Your task to perform on an android device: Open calendar and show me the fourth week of next month Image 0: 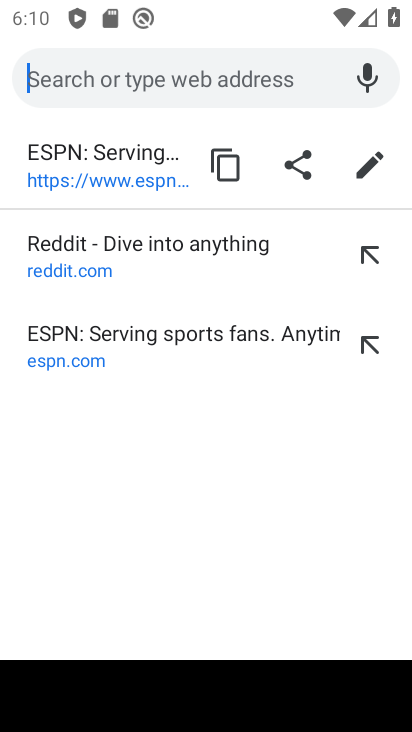
Step 0: press home button
Your task to perform on an android device: Open calendar and show me the fourth week of next month Image 1: 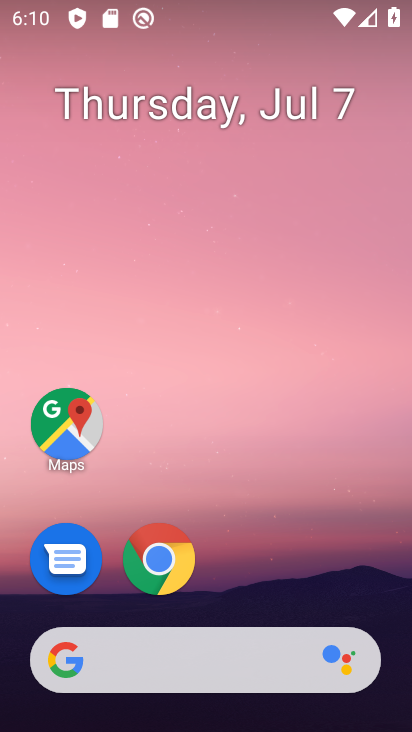
Step 1: drag from (316, 597) to (346, 184)
Your task to perform on an android device: Open calendar and show me the fourth week of next month Image 2: 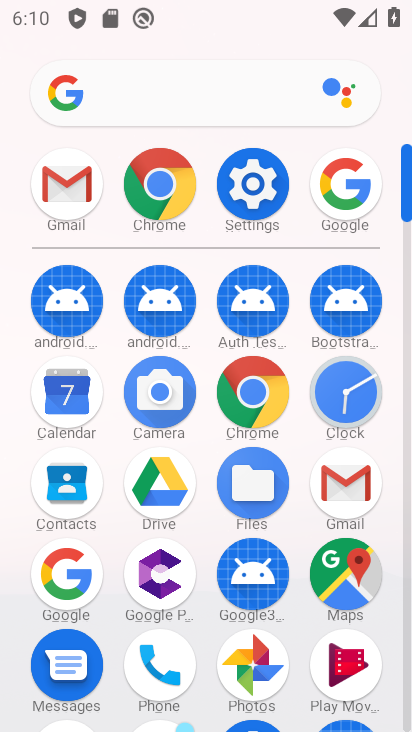
Step 2: click (70, 409)
Your task to perform on an android device: Open calendar and show me the fourth week of next month Image 3: 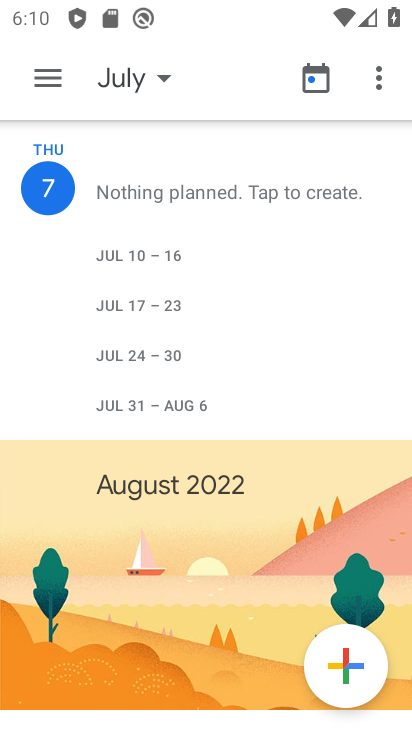
Step 3: click (151, 76)
Your task to perform on an android device: Open calendar and show me the fourth week of next month Image 4: 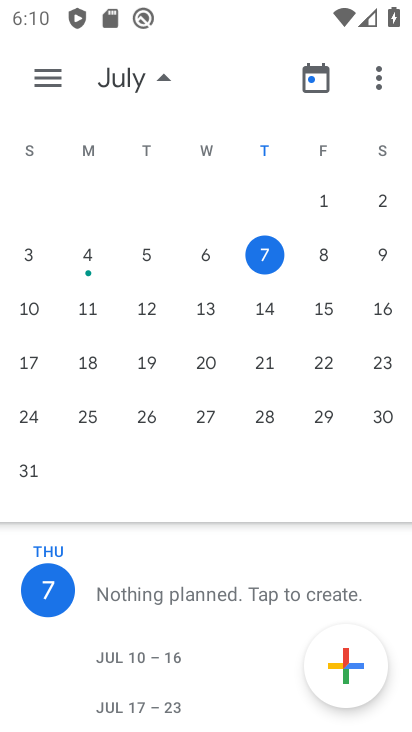
Step 4: drag from (357, 370) to (2, 369)
Your task to perform on an android device: Open calendar and show me the fourth week of next month Image 5: 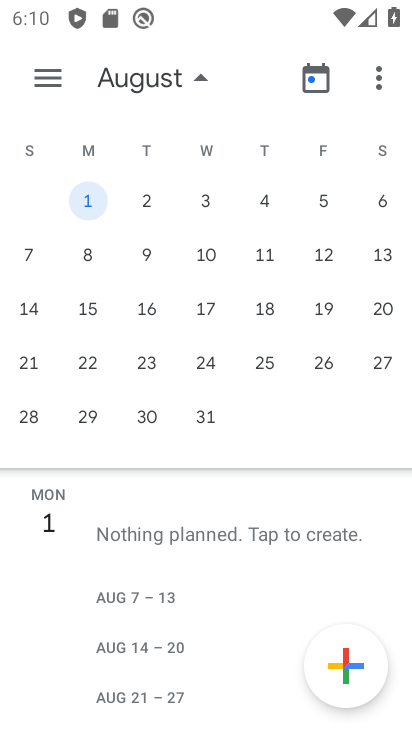
Step 5: click (35, 371)
Your task to perform on an android device: Open calendar and show me the fourth week of next month Image 6: 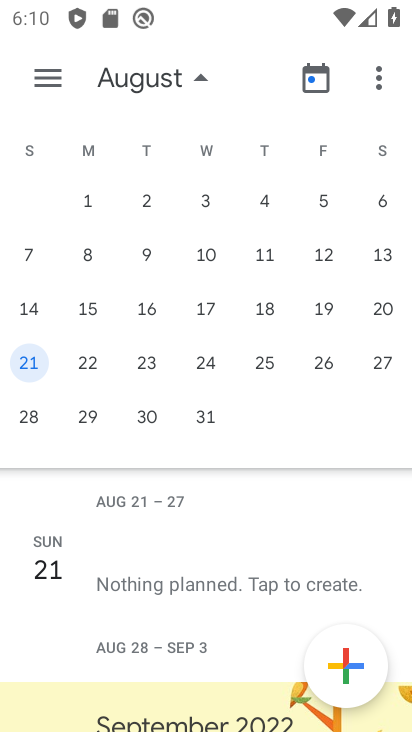
Step 6: task complete